Your task to perform on an android device: Open Chrome and go to settings Image 0: 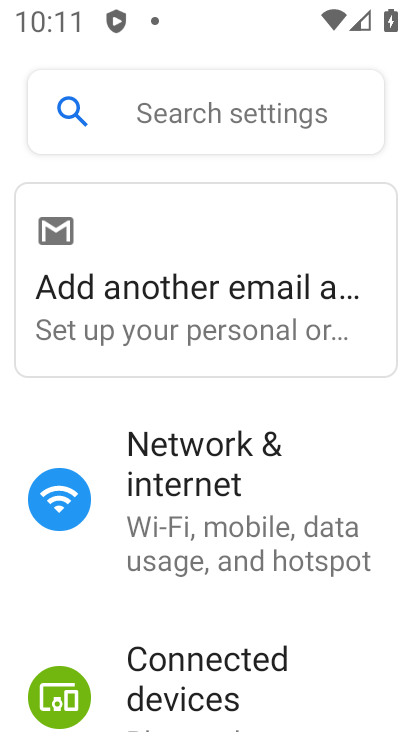
Step 0: press home button
Your task to perform on an android device: Open Chrome and go to settings Image 1: 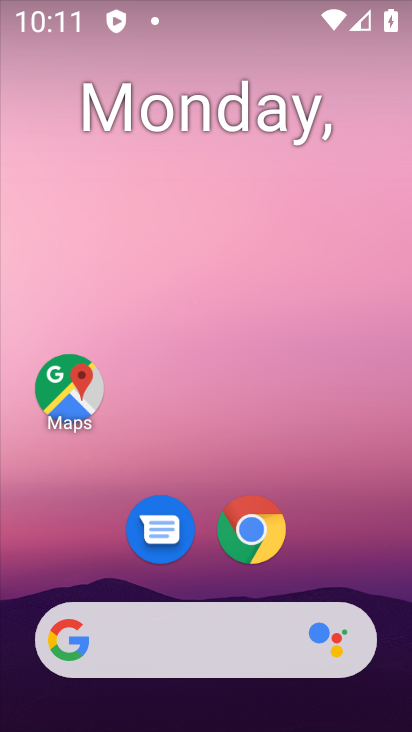
Step 1: click (249, 536)
Your task to perform on an android device: Open Chrome and go to settings Image 2: 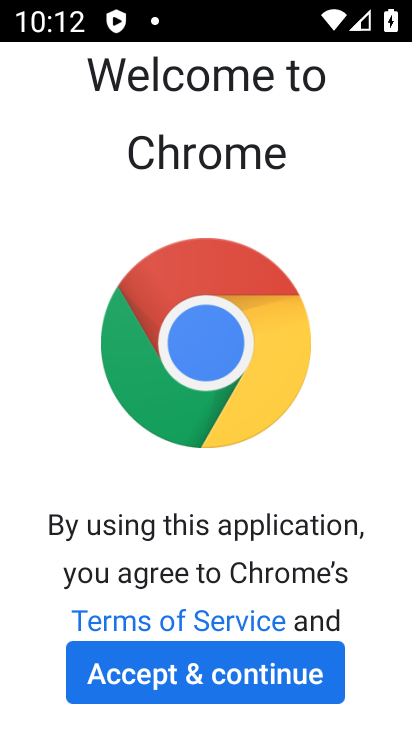
Step 2: click (242, 670)
Your task to perform on an android device: Open Chrome and go to settings Image 3: 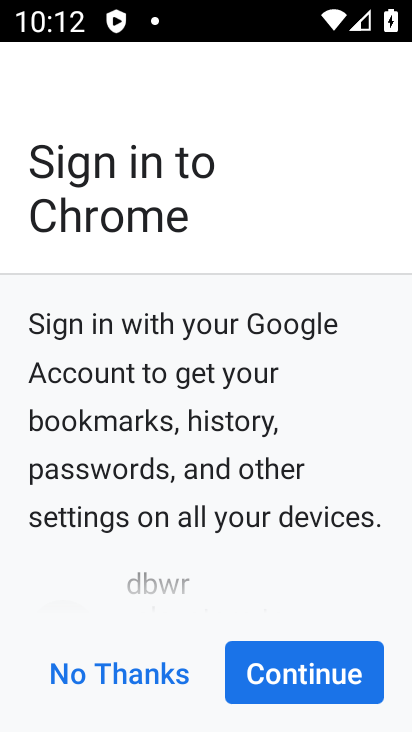
Step 3: click (262, 675)
Your task to perform on an android device: Open Chrome and go to settings Image 4: 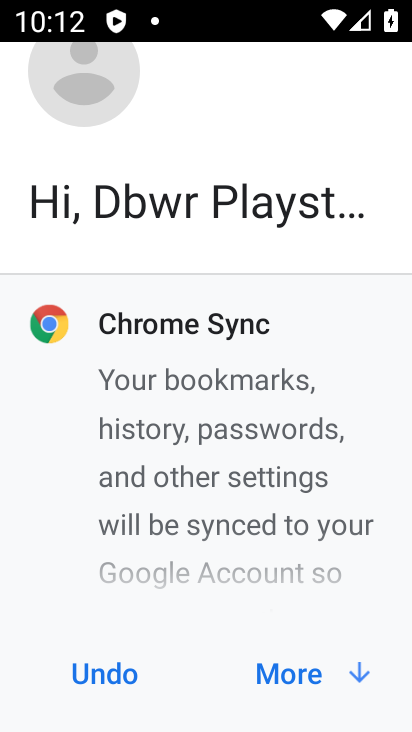
Step 4: click (366, 675)
Your task to perform on an android device: Open Chrome and go to settings Image 5: 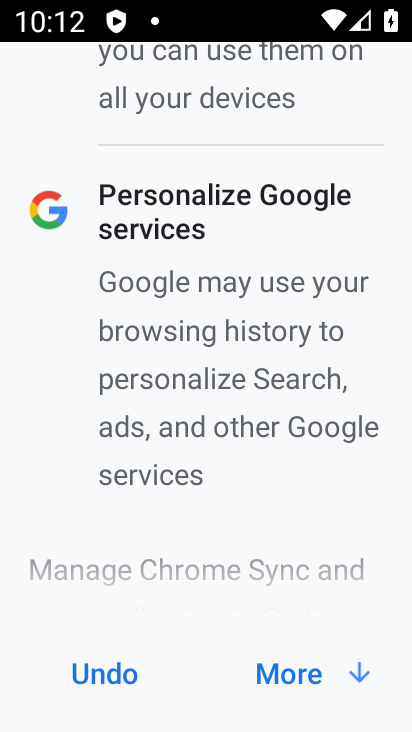
Step 5: click (354, 675)
Your task to perform on an android device: Open Chrome and go to settings Image 6: 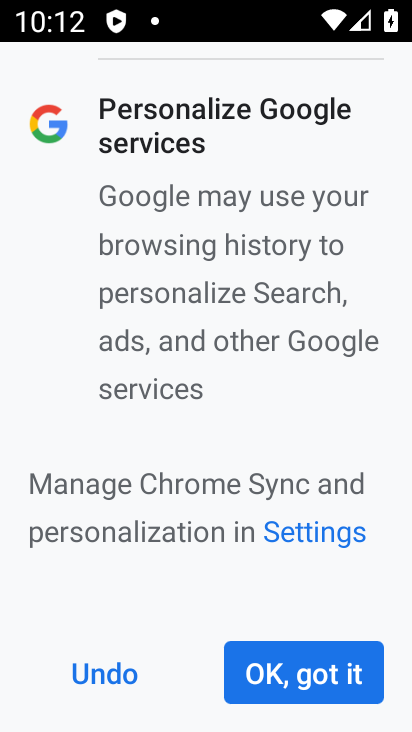
Step 6: click (305, 672)
Your task to perform on an android device: Open Chrome and go to settings Image 7: 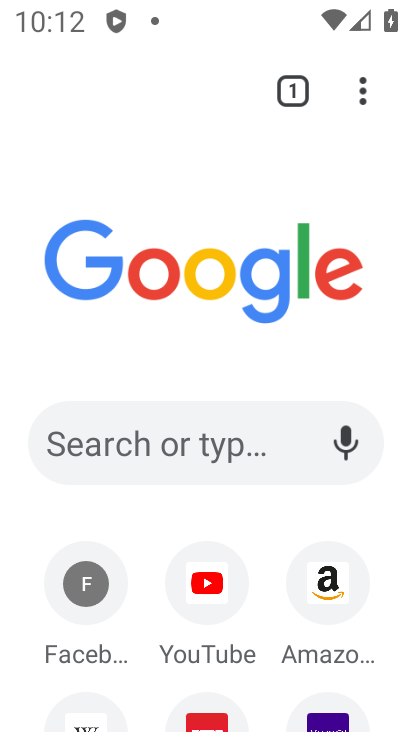
Step 7: click (365, 89)
Your task to perform on an android device: Open Chrome and go to settings Image 8: 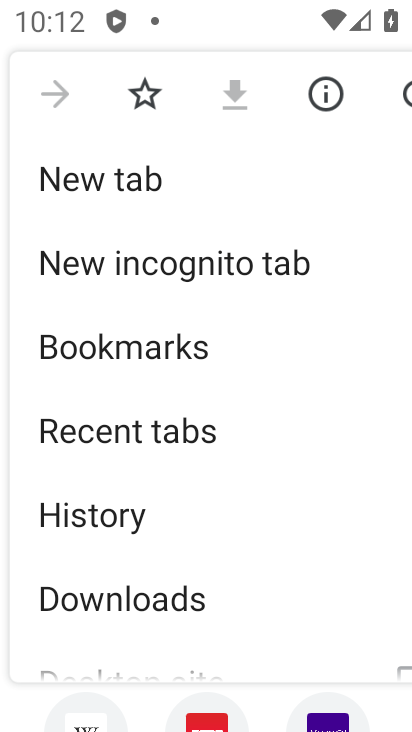
Step 8: drag from (253, 522) to (228, 241)
Your task to perform on an android device: Open Chrome and go to settings Image 9: 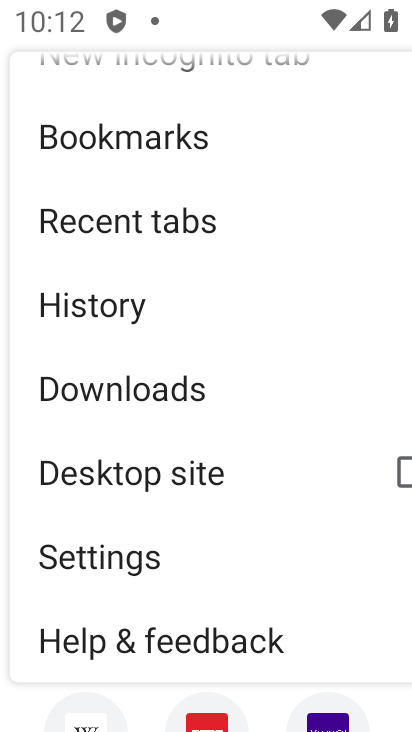
Step 9: click (140, 551)
Your task to perform on an android device: Open Chrome and go to settings Image 10: 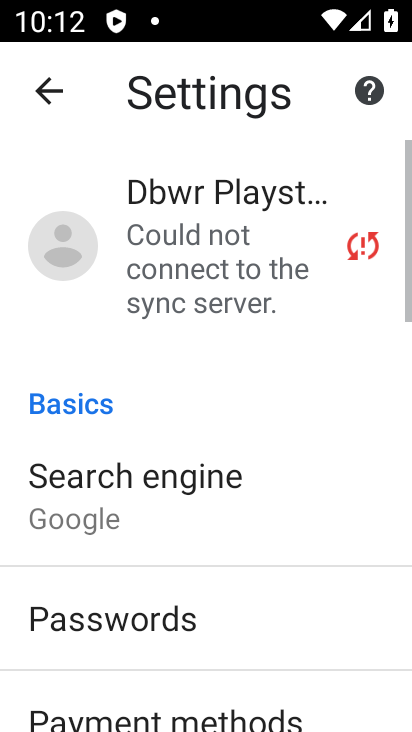
Step 10: task complete